Your task to perform on an android device: set default search engine in the chrome app Image 0: 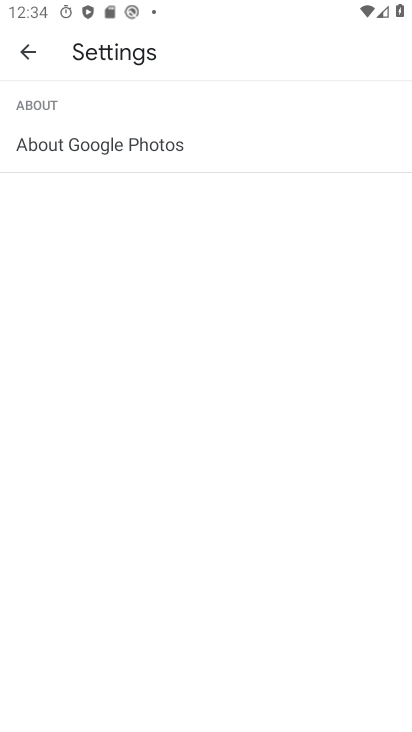
Step 0: press back button
Your task to perform on an android device: set default search engine in the chrome app Image 1: 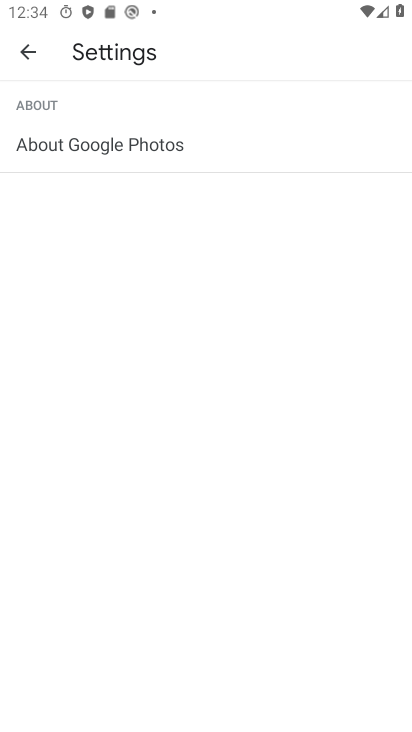
Step 1: press home button
Your task to perform on an android device: set default search engine in the chrome app Image 2: 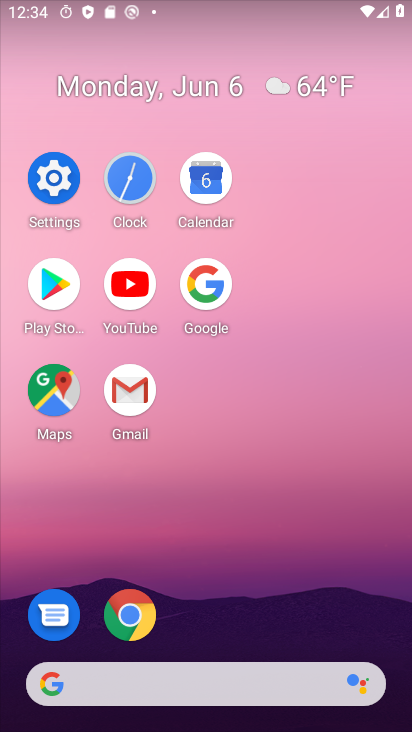
Step 2: click (129, 614)
Your task to perform on an android device: set default search engine in the chrome app Image 3: 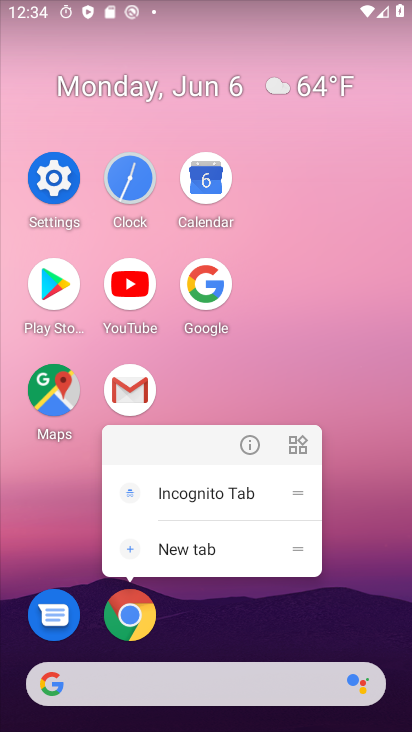
Step 3: click (125, 640)
Your task to perform on an android device: set default search engine in the chrome app Image 4: 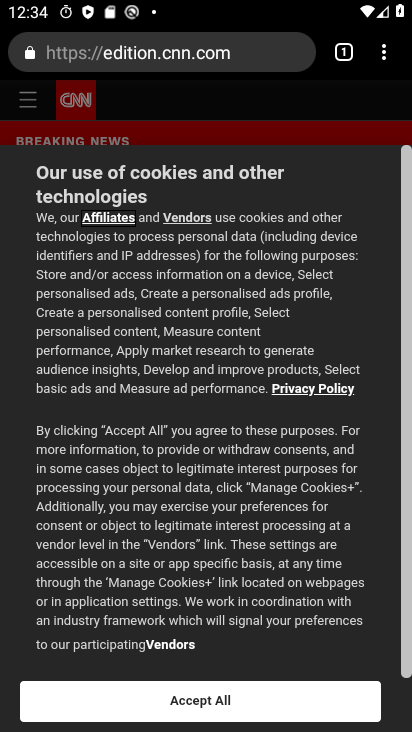
Step 4: click (399, 58)
Your task to perform on an android device: set default search engine in the chrome app Image 5: 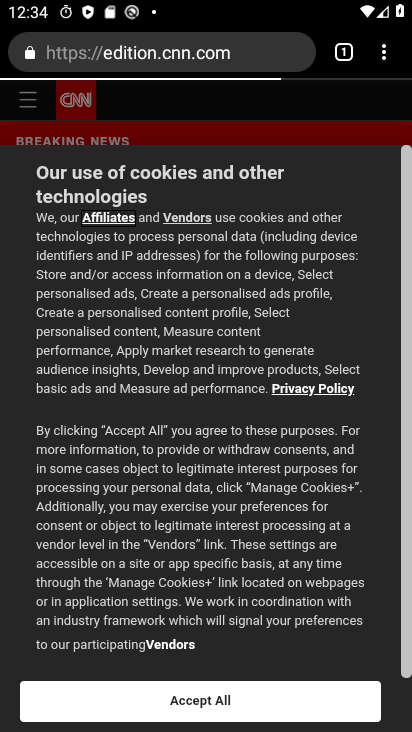
Step 5: click (378, 52)
Your task to perform on an android device: set default search engine in the chrome app Image 6: 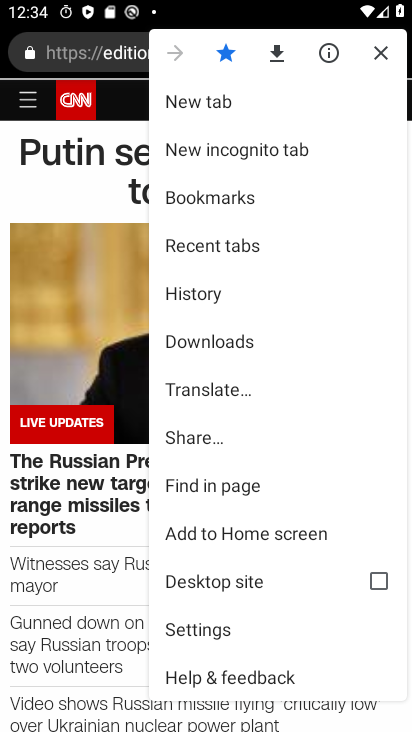
Step 6: click (218, 630)
Your task to perform on an android device: set default search engine in the chrome app Image 7: 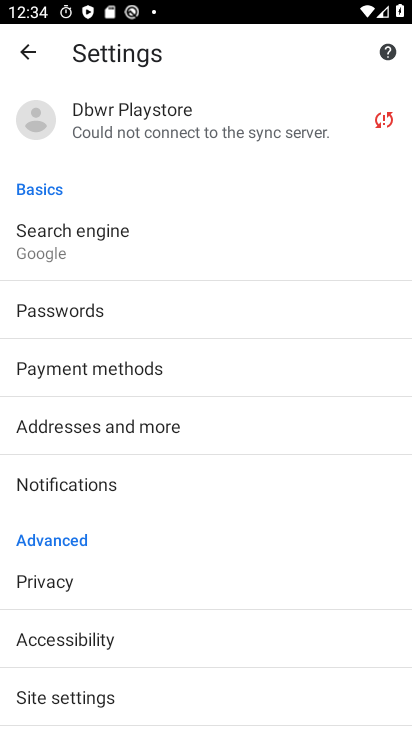
Step 7: task complete